Your task to perform on an android device: toggle javascript in the chrome app Image 0: 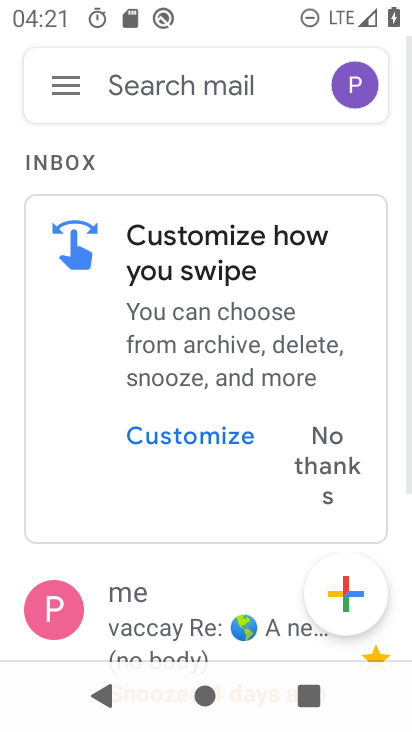
Step 0: drag from (139, 587) to (222, 143)
Your task to perform on an android device: toggle javascript in the chrome app Image 1: 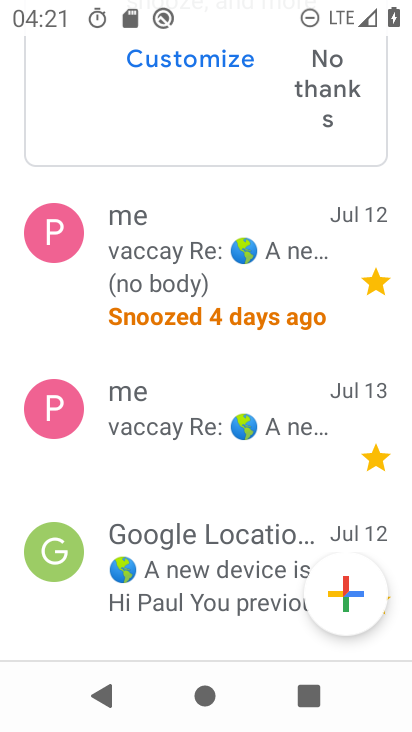
Step 1: drag from (216, 210) to (143, 614)
Your task to perform on an android device: toggle javascript in the chrome app Image 2: 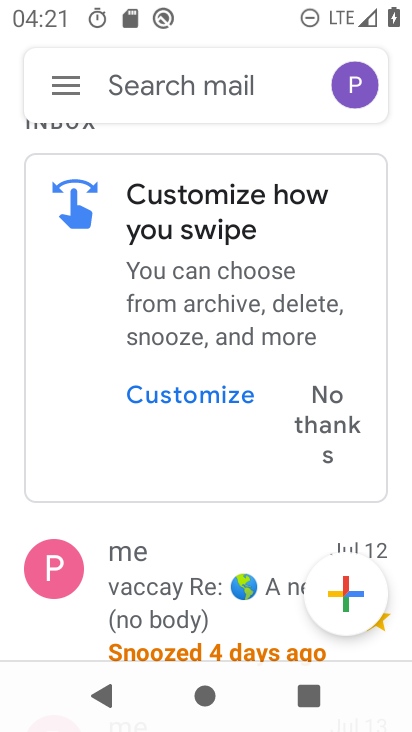
Step 2: drag from (194, 272) to (210, 728)
Your task to perform on an android device: toggle javascript in the chrome app Image 3: 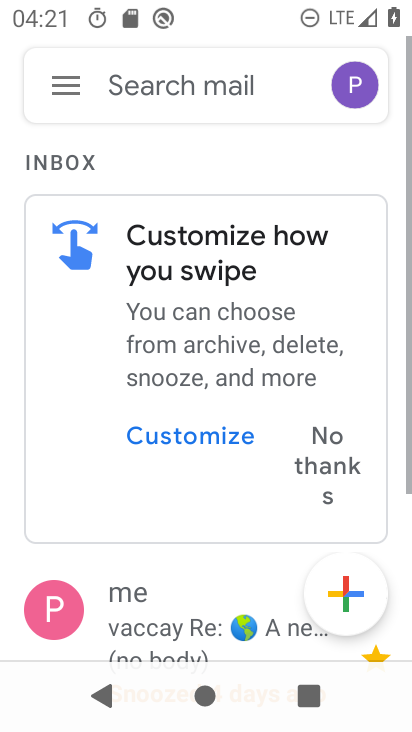
Step 3: press back button
Your task to perform on an android device: toggle javascript in the chrome app Image 4: 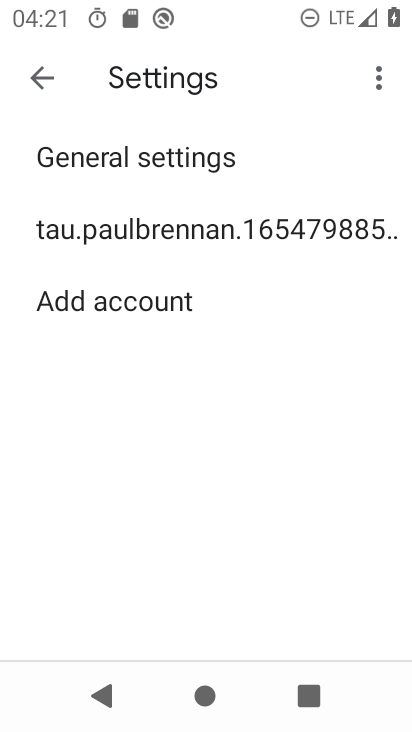
Step 4: press back button
Your task to perform on an android device: toggle javascript in the chrome app Image 5: 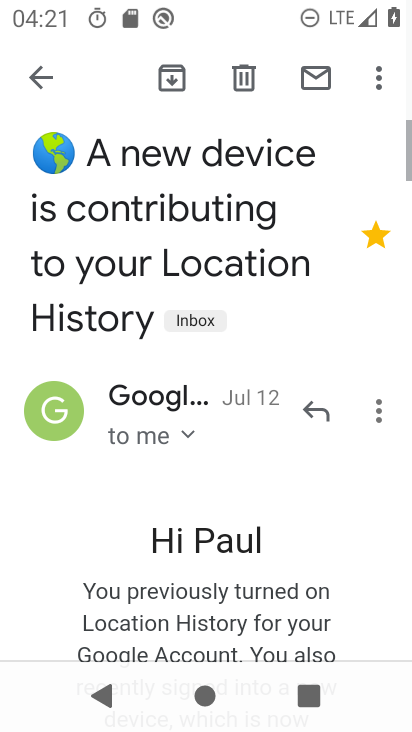
Step 5: press back button
Your task to perform on an android device: toggle javascript in the chrome app Image 6: 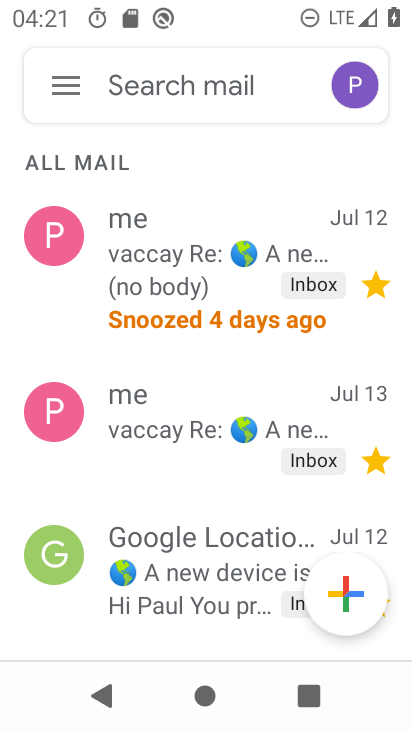
Step 6: press back button
Your task to perform on an android device: toggle javascript in the chrome app Image 7: 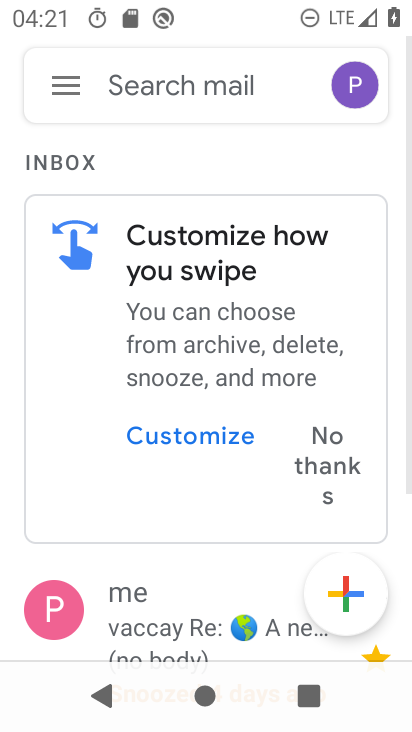
Step 7: press back button
Your task to perform on an android device: toggle javascript in the chrome app Image 8: 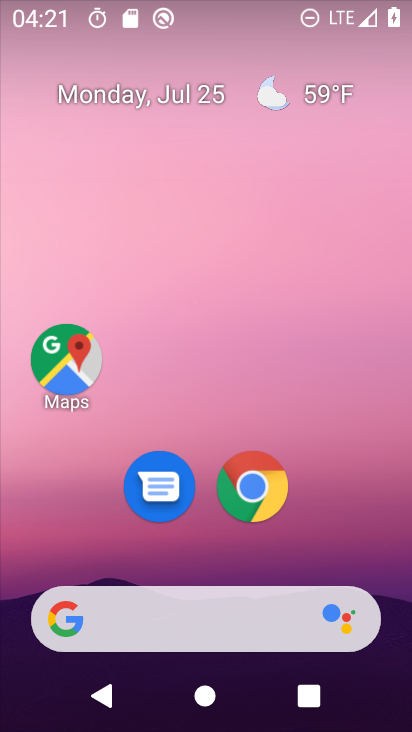
Step 8: click (241, 470)
Your task to perform on an android device: toggle javascript in the chrome app Image 9: 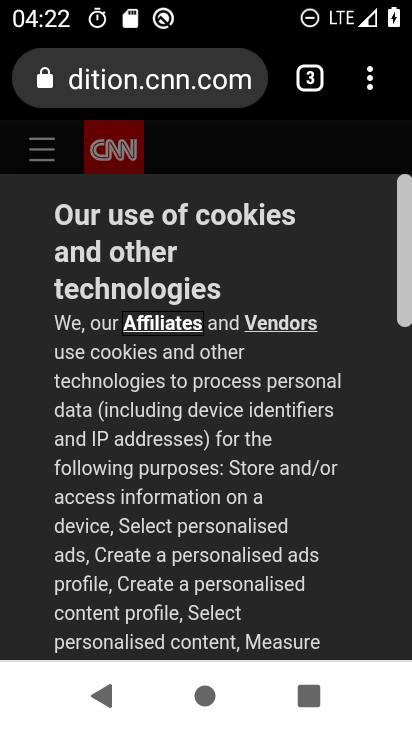
Step 9: drag from (368, 75) to (106, 548)
Your task to perform on an android device: toggle javascript in the chrome app Image 10: 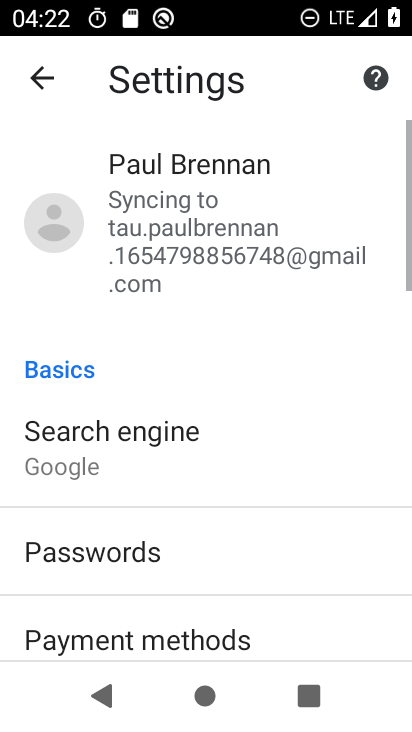
Step 10: drag from (130, 578) to (231, 72)
Your task to perform on an android device: toggle javascript in the chrome app Image 11: 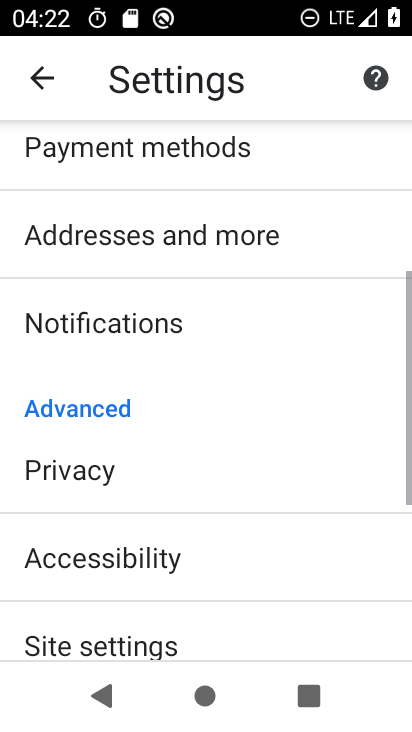
Step 11: drag from (157, 526) to (264, 45)
Your task to perform on an android device: toggle javascript in the chrome app Image 12: 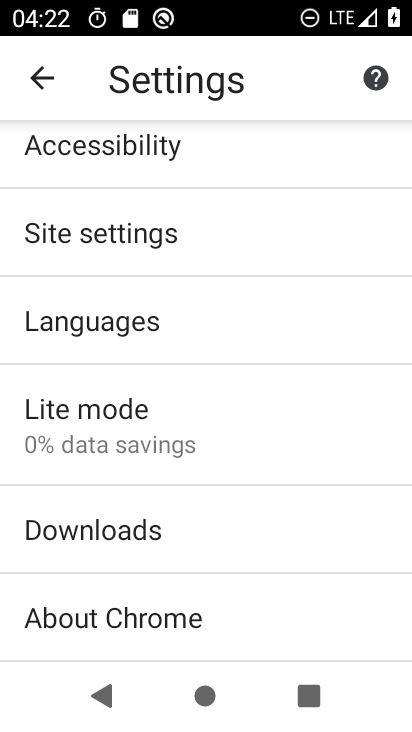
Step 12: click (117, 221)
Your task to perform on an android device: toggle javascript in the chrome app Image 13: 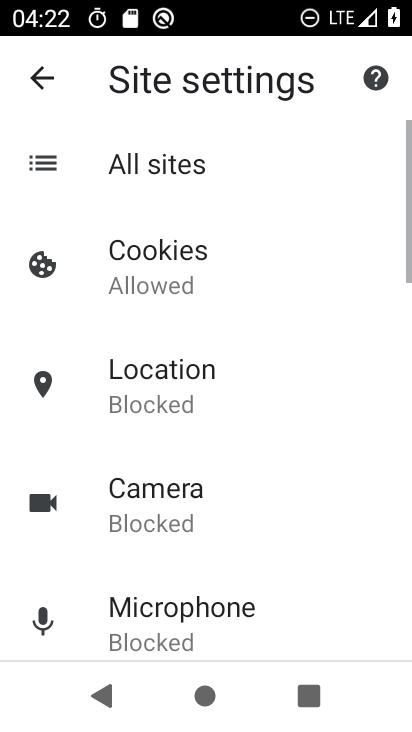
Step 13: drag from (148, 608) to (264, 78)
Your task to perform on an android device: toggle javascript in the chrome app Image 14: 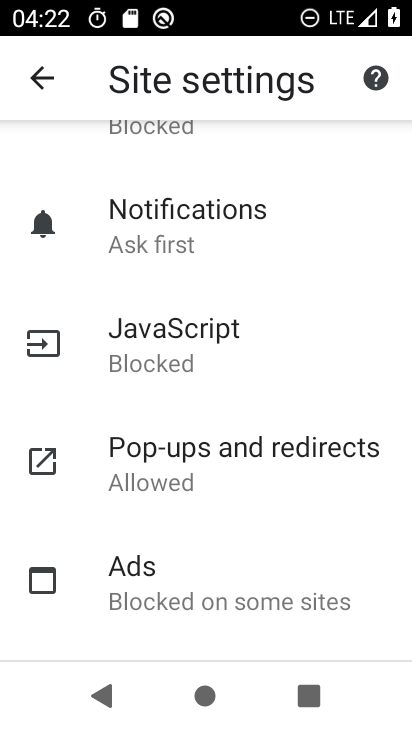
Step 14: click (150, 342)
Your task to perform on an android device: toggle javascript in the chrome app Image 15: 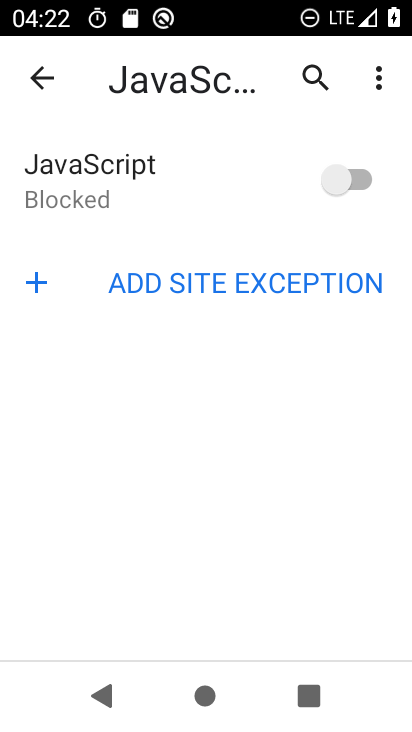
Step 15: click (336, 171)
Your task to perform on an android device: toggle javascript in the chrome app Image 16: 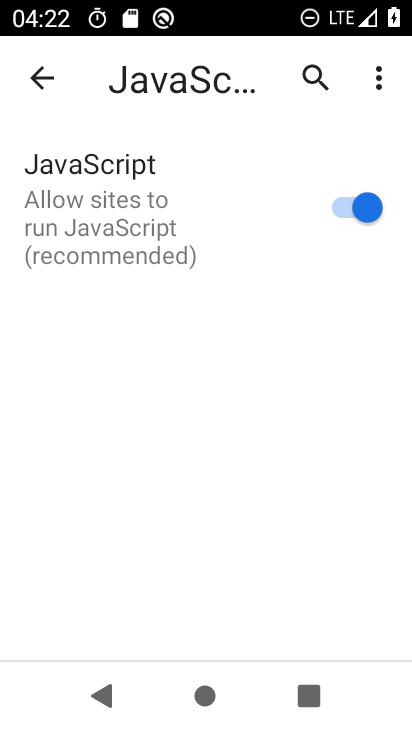
Step 16: task complete